Your task to perform on an android device: Turn on the flashlight Image 0: 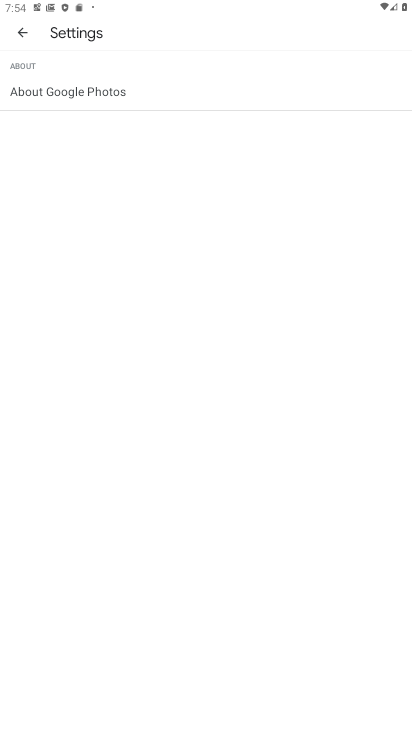
Step 0: press back button
Your task to perform on an android device: Turn on the flashlight Image 1: 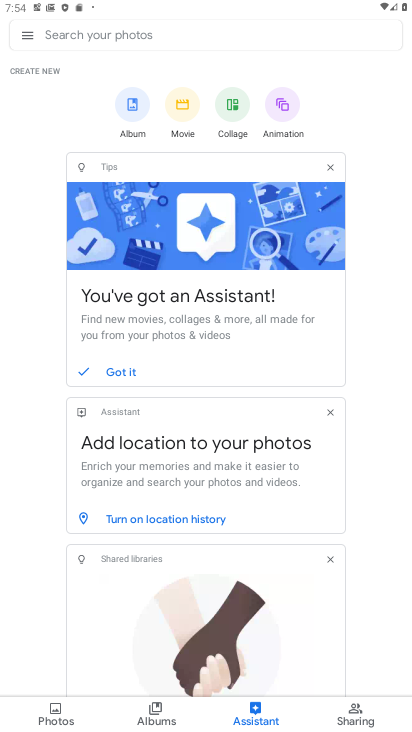
Step 1: task complete